Your task to perform on an android device: Open Google Image 0: 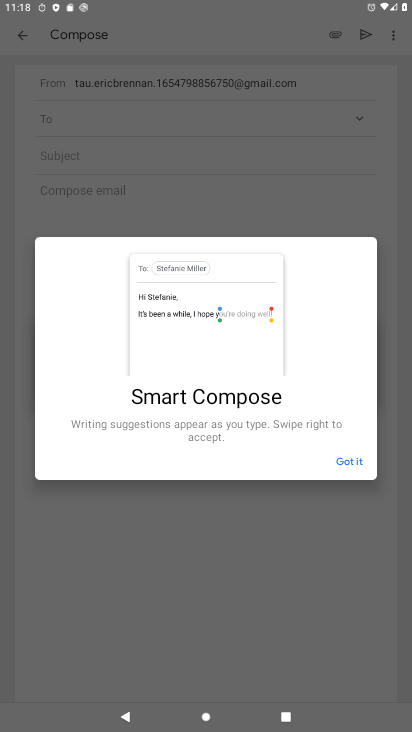
Step 0: press home button
Your task to perform on an android device: Open Google Image 1: 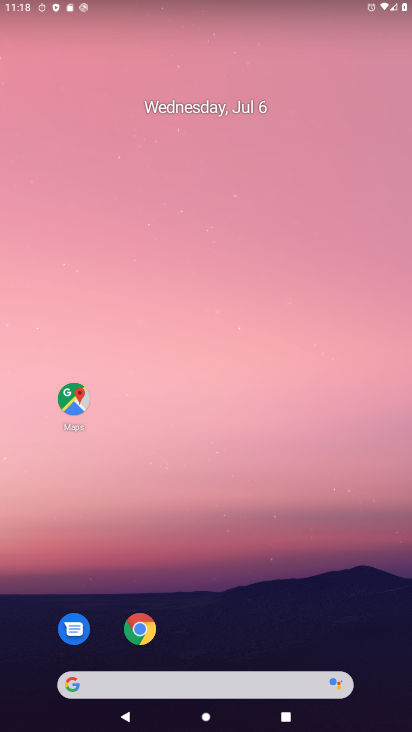
Step 1: drag from (241, 626) to (233, 77)
Your task to perform on an android device: Open Google Image 2: 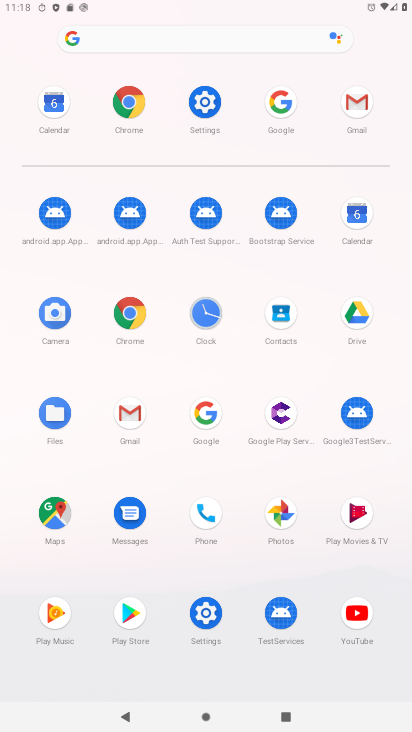
Step 2: click (284, 113)
Your task to perform on an android device: Open Google Image 3: 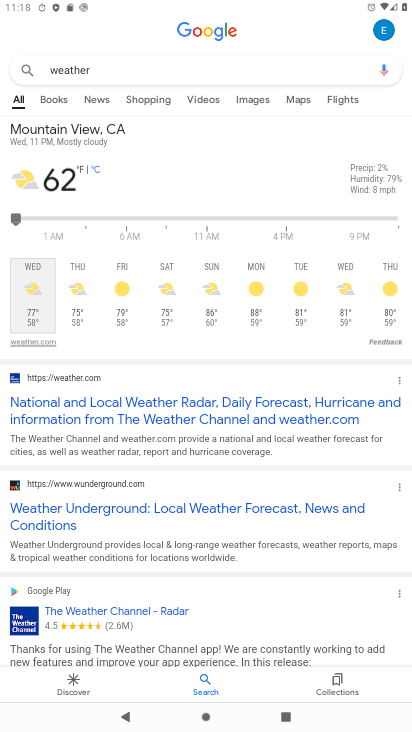
Step 3: click (186, 78)
Your task to perform on an android device: Open Google Image 4: 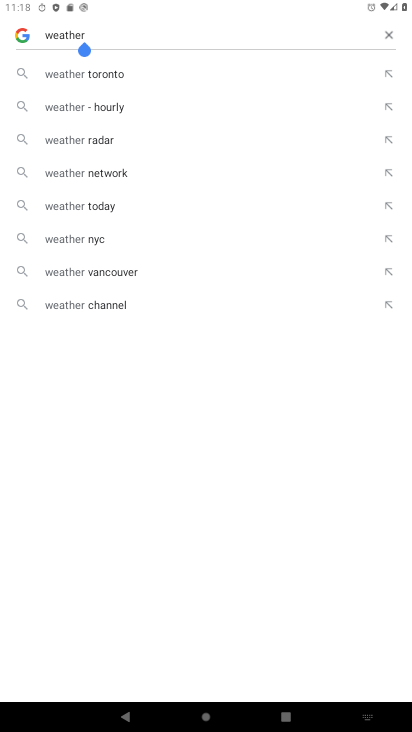
Step 4: click (384, 35)
Your task to perform on an android device: Open Google Image 5: 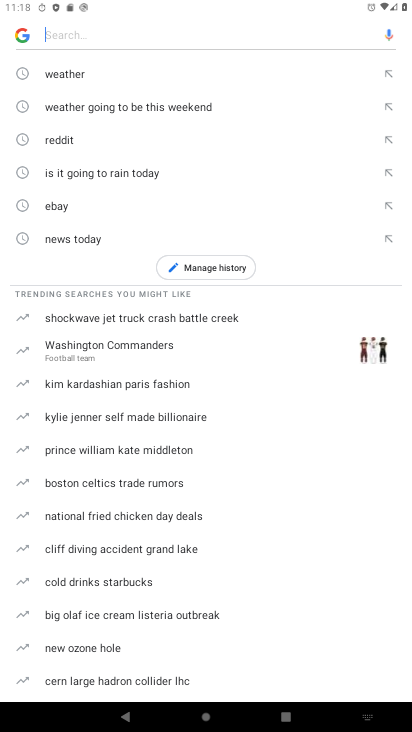
Step 5: task complete